Your task to perform on an android device: Clear all items from cart on target.com. Search for "logitech g pro" on target.com, select the first entry, and add it to the cart. Image 0: 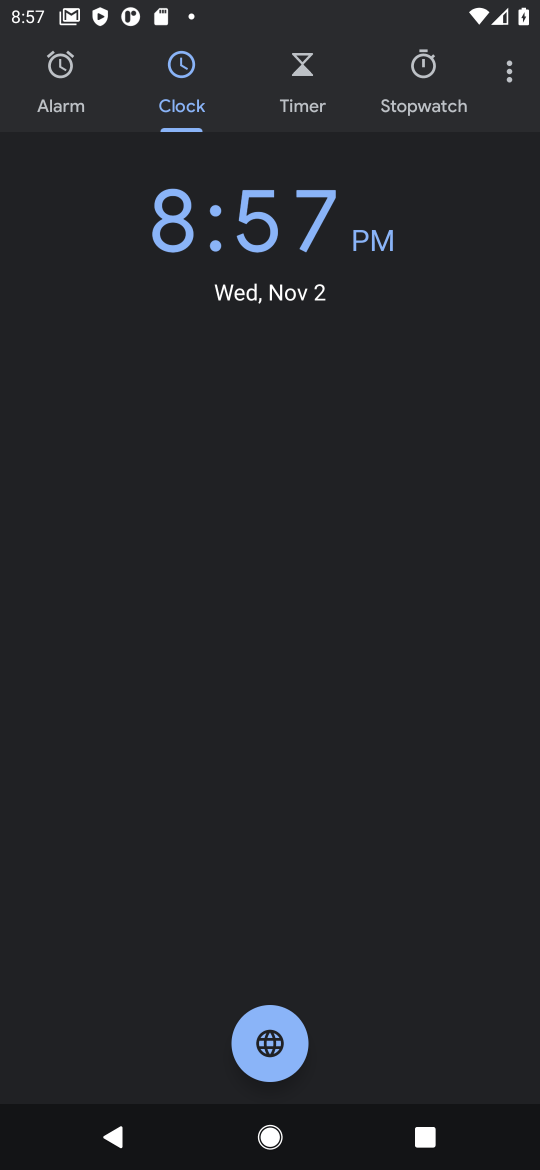
Step 0: press home button
Your task to perform on an android device: Clear all items from cart on target.com. Search for "logitech g pro" on target.com, select the first entry, and add it to the cart. Image 1: 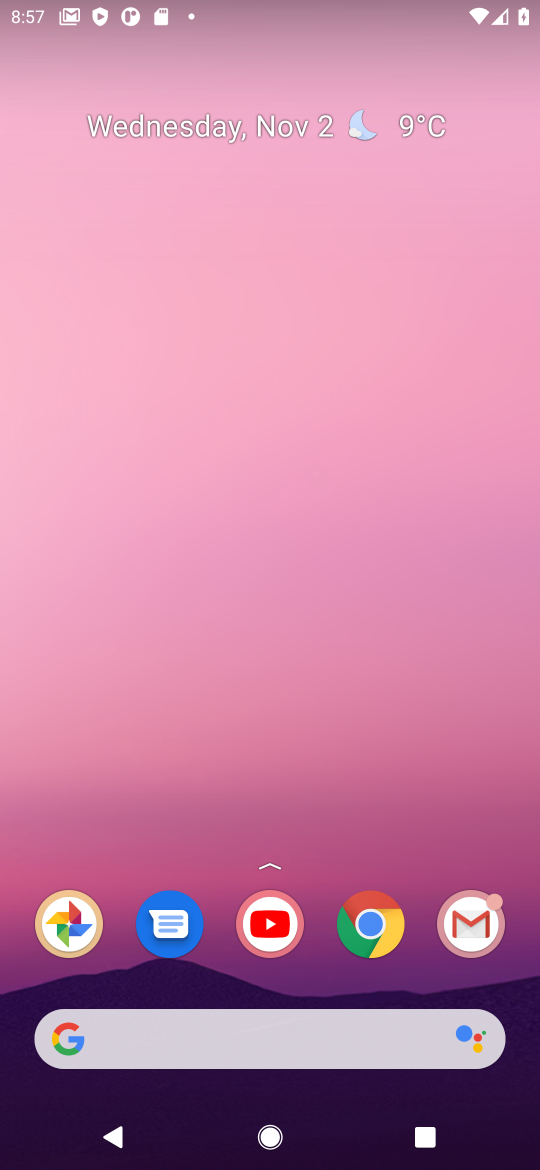
Step 1: click (374, 926)
Your task to perform on an android device: Clear all items from cart on target.com. Search for "logitech g pro" on target.com, select the first entry, and add it to the cart. Image 2: 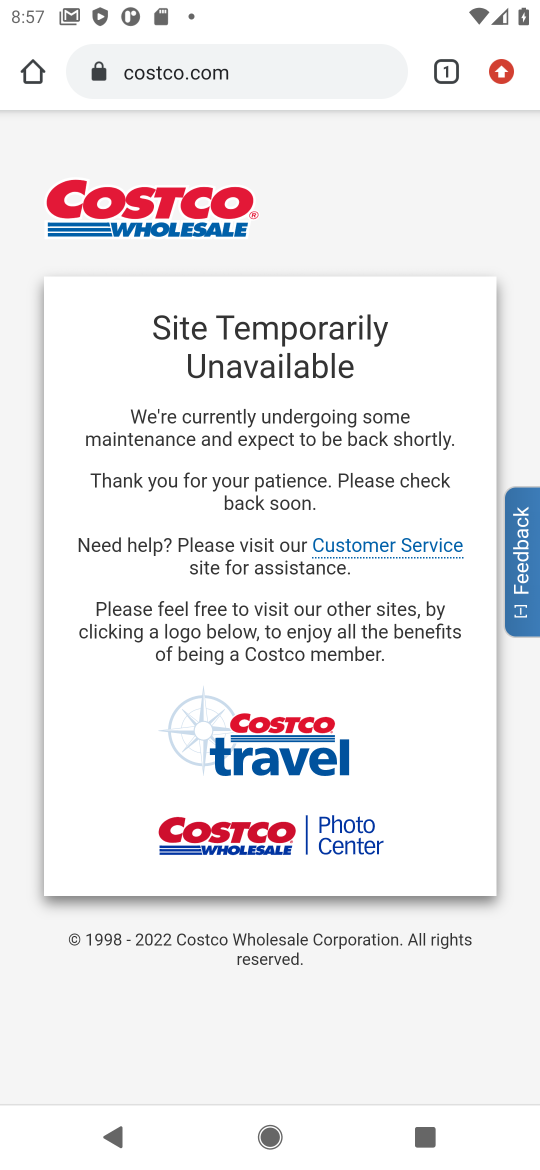
Step 2: click (169, 72)
Your task to perform on an android device: Clear all items from cart on target.com. Search for "logitech g pro" on target.com, select the first entry, and add it to the cart. Image 3: 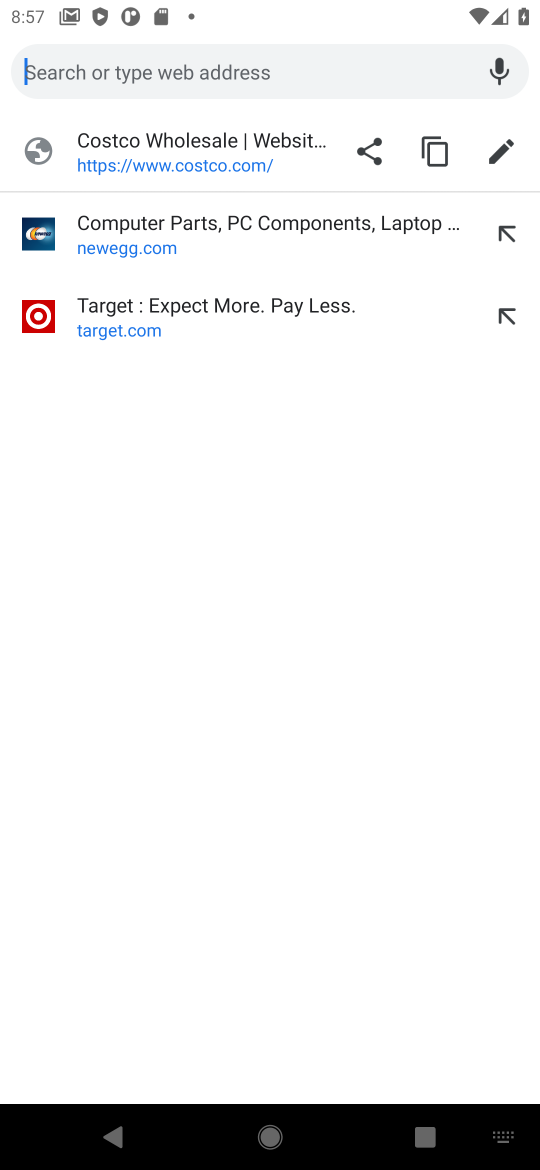
Step 3: type "target"
Your task to perform on an android device: Clear all items from cart on target.com. Search for "logitech g pro" on target.com, select the first entry, and add it to the cart. Image 4: 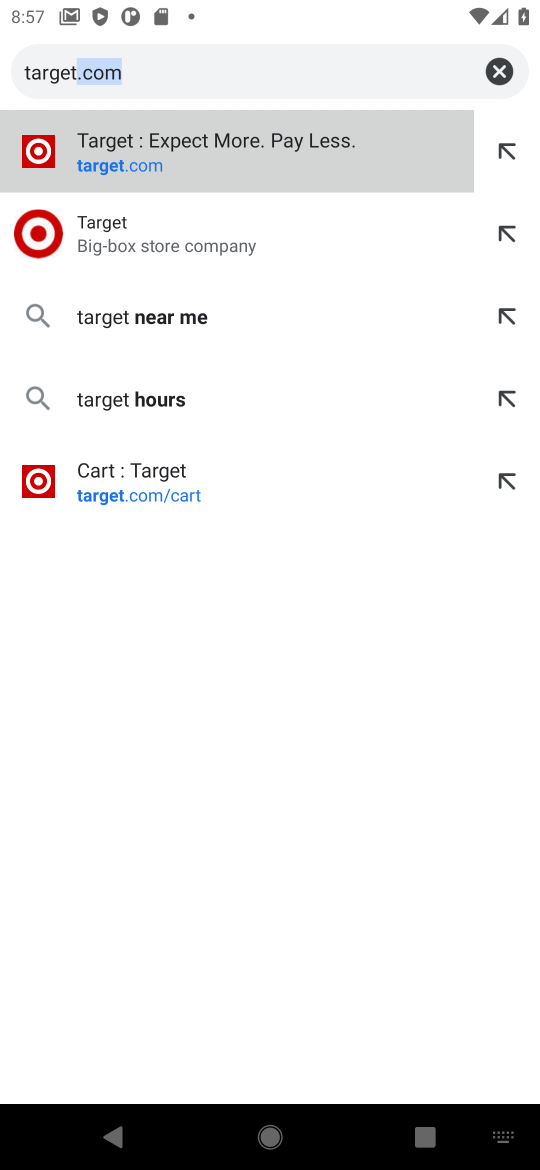
Step 4: click (134, 189)
Your task to perform on an android device: Clear all items from cart on target.com. Search for "logitech g pro" on target.com, select the first entry, and add it to the cart. Image 5: 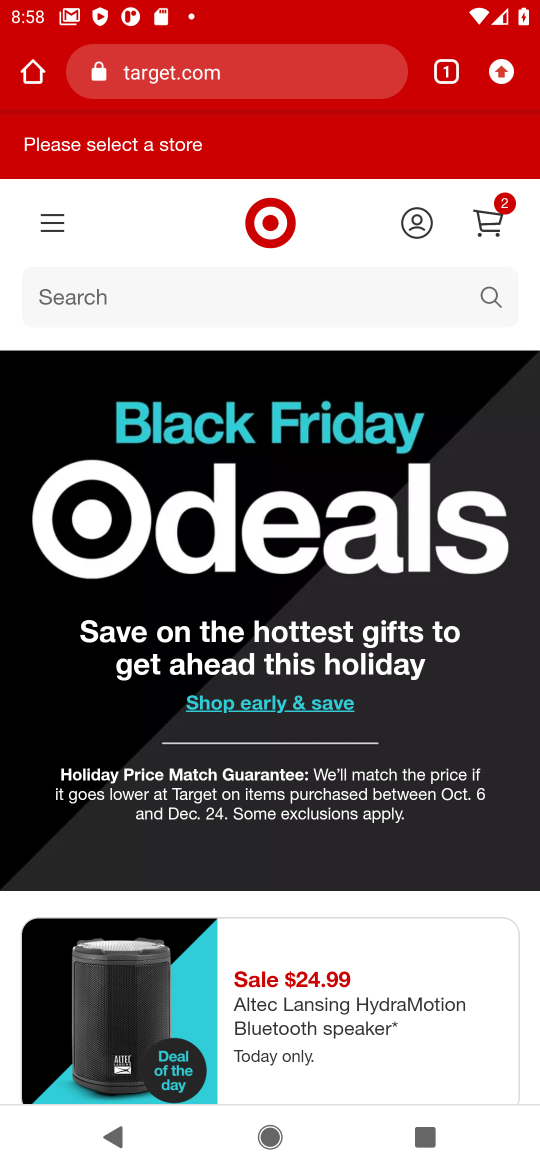
Step 5: click (480, 293)
Your task to perform on an android device: Clear all items from cart on target.com. Search for "logitech g pro" on target.com, select the first entry, and add it to the cart. Image 6: 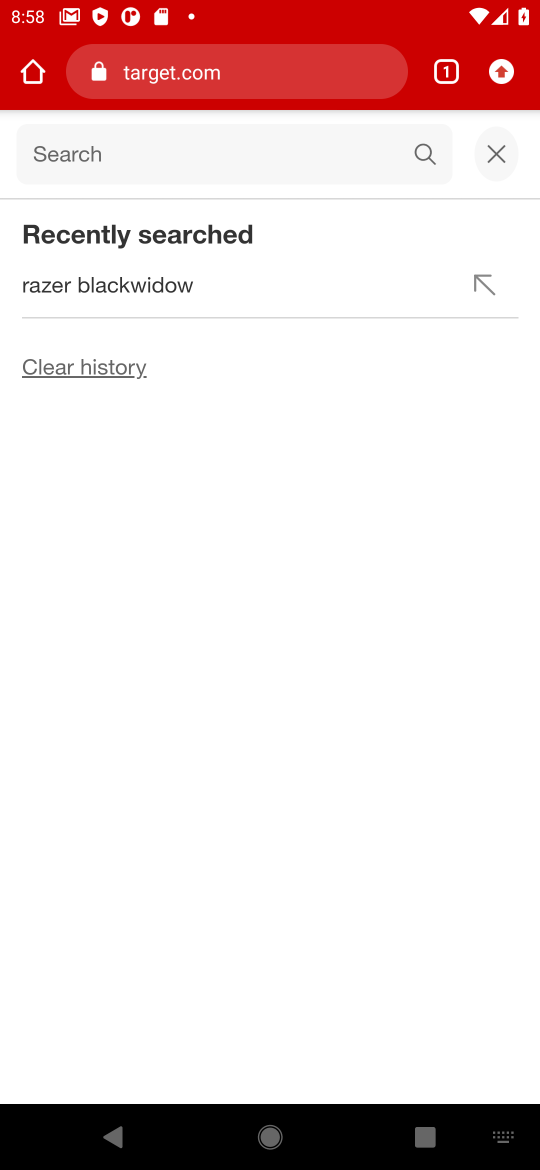
Step 6: type "logitech g pro"
Your task to perform on an android device: Clear all items from cart on target.com. Search for "logitech g pro" on target.com, select the first entry, and add it to the cart. Image 7: 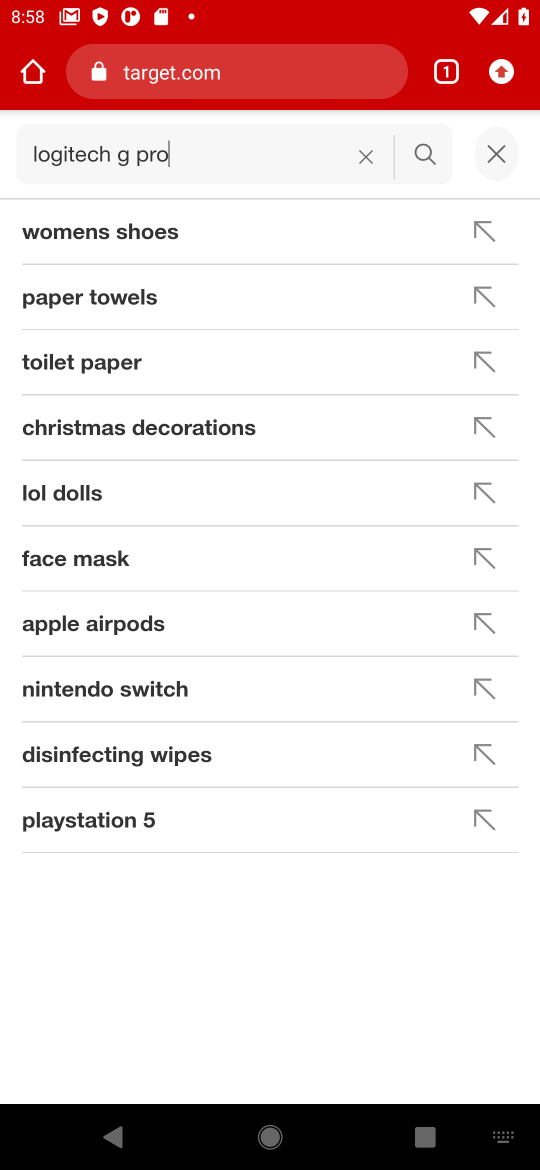
Step 7: type ""
Your task to perform on an android device: Clear all items from cart on target.com. Search for "logitech g pro" on target.com, select the first entry, and add it to the cart. Image 8: 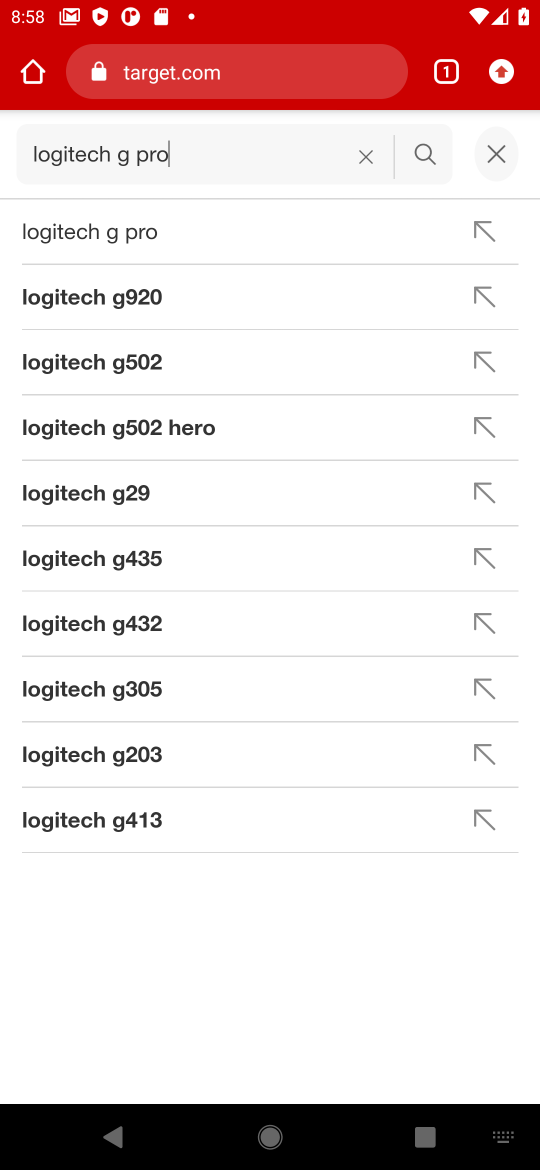
Step 8: click (126, 238)
Your task to perform on an android device: Clear all items from cart on target.com. Search for "logitech g pro" on target.com, select the first entry, and add it to the cart. Image 9: 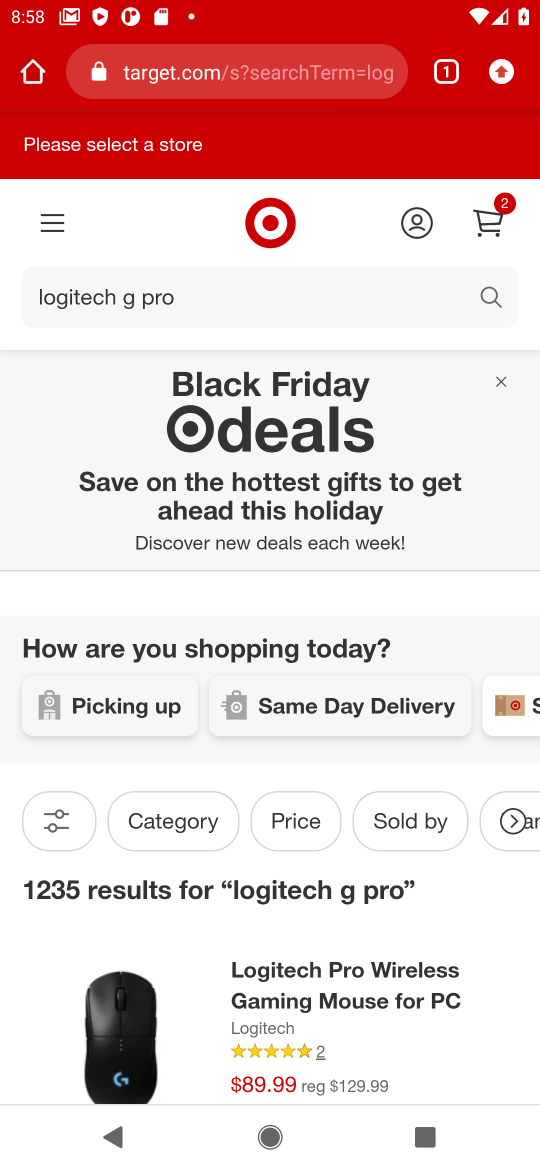
Step 9: click (282, 1009)
Your task to perform on an android device: Clear all items from cart on target.com. Search for "logitech g pro" on target.com, select the first entry, and add it to the cart. Image 10: 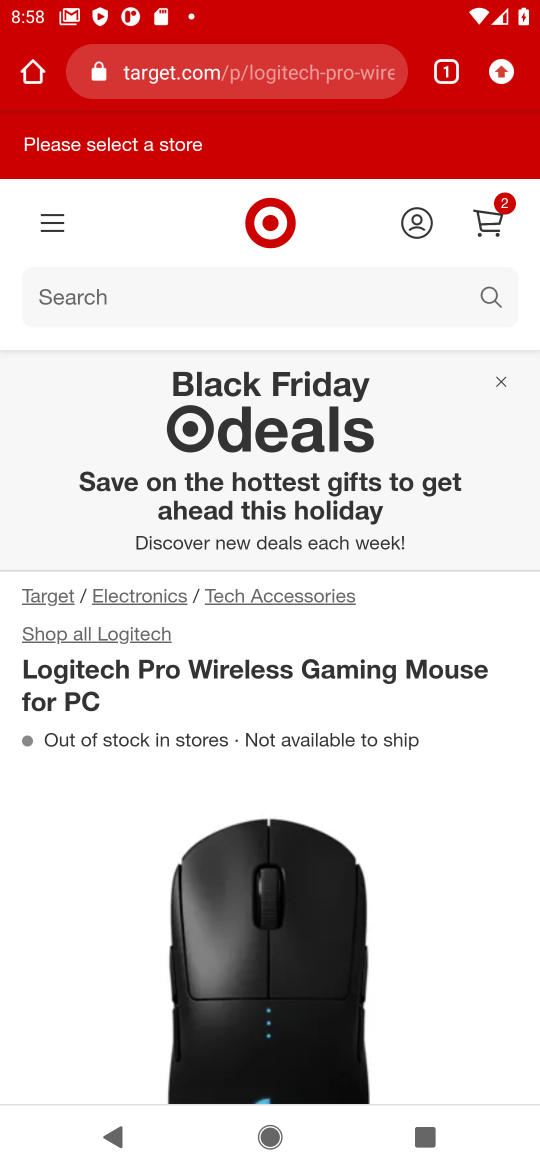
Step 10: drag from (410, 928) to (431, 442)
Your task to perform on an android device: Clear all items from cart on target.com. Search for "logitech g pro" on target.com, select the first entry, and add it to the cart. Image 11: 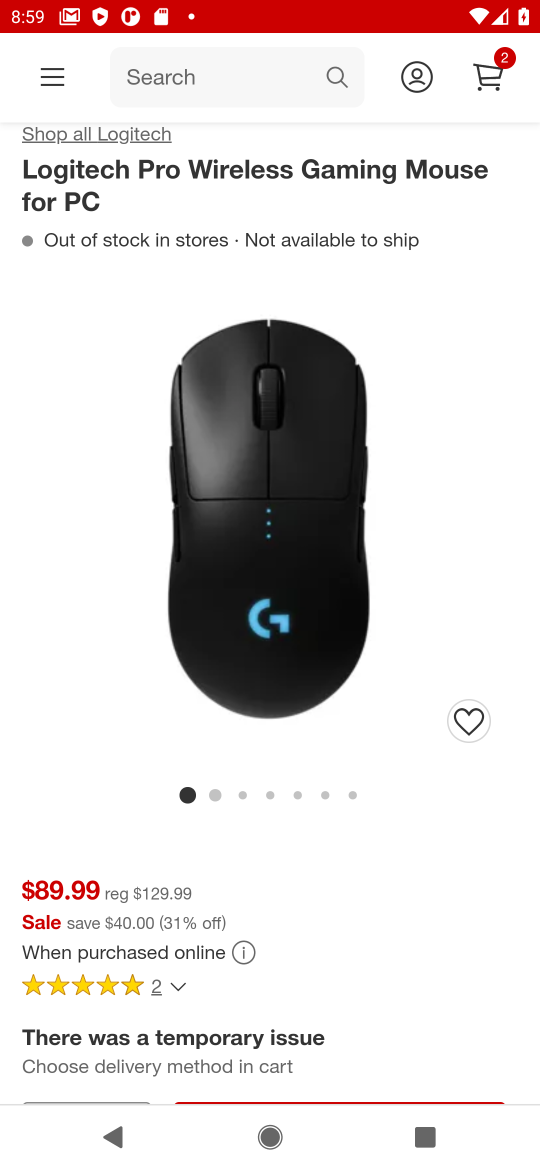
Step 11: drag from (381, 896) to (412, 721)
Your task to perform on an android device: Clear all items from cart on target.com. Search for "logitech g pro" on target.com, select the first entry, and add it to the cart. Image 12: 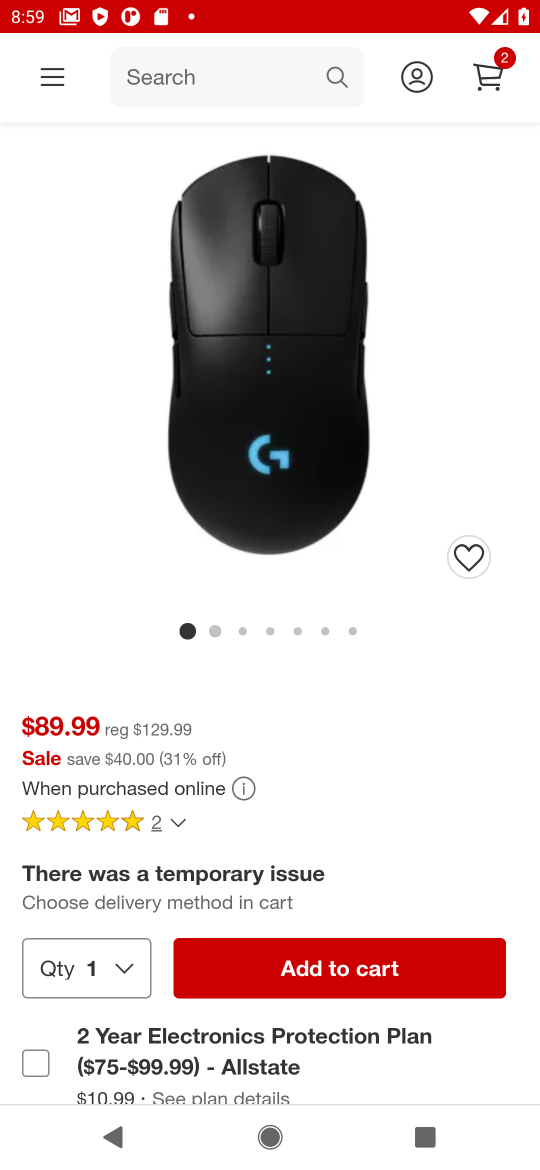
Step 12: click (409, 962)
Your task to perform on an android device: Clear all items from cart on target.com. Search for "logitech g pro" on target.com, select the first entry, and add it to the cart. Image 13: 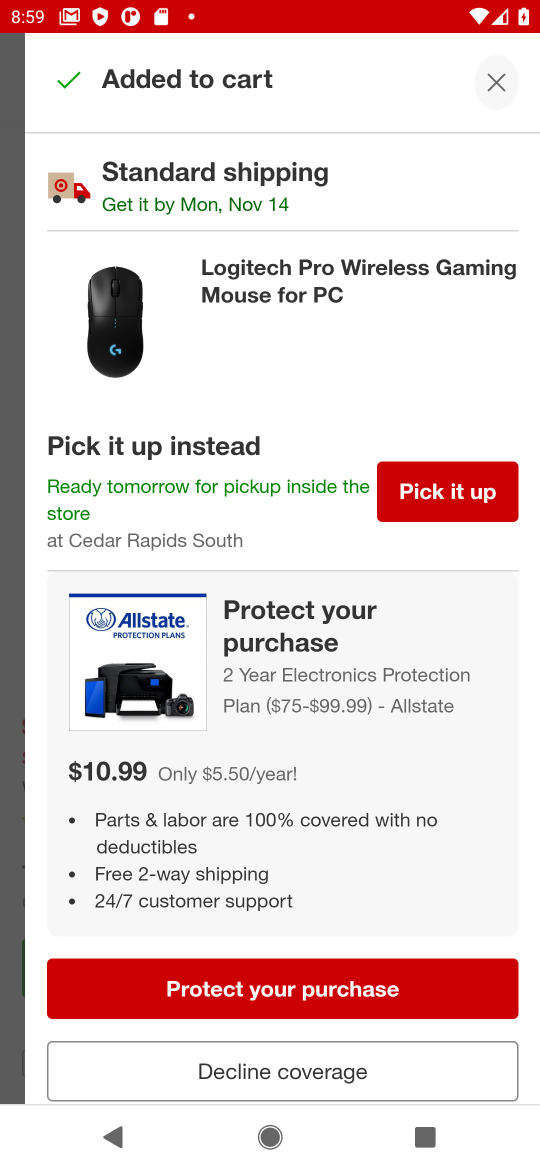
Step 13: drag from (394, 903) to (393, 673)
Your task to perform on an android device: Clear all items from cart on target.com. Search for "logitech g pro" on target.com, select the first entry, and add it to the cart. Image 14: 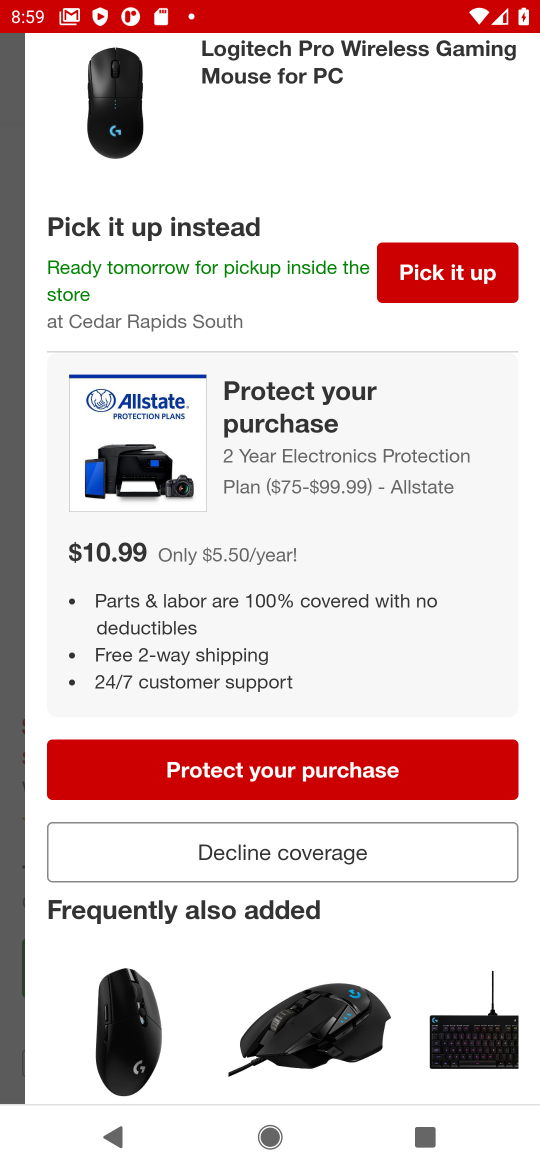
Step 14: click (252, 771)
Your task to perform on an android device: Clear all items from cart on target.com. Search for "logitech g pro" on target.com, select the first entry, and add it to the cart. Image 15: 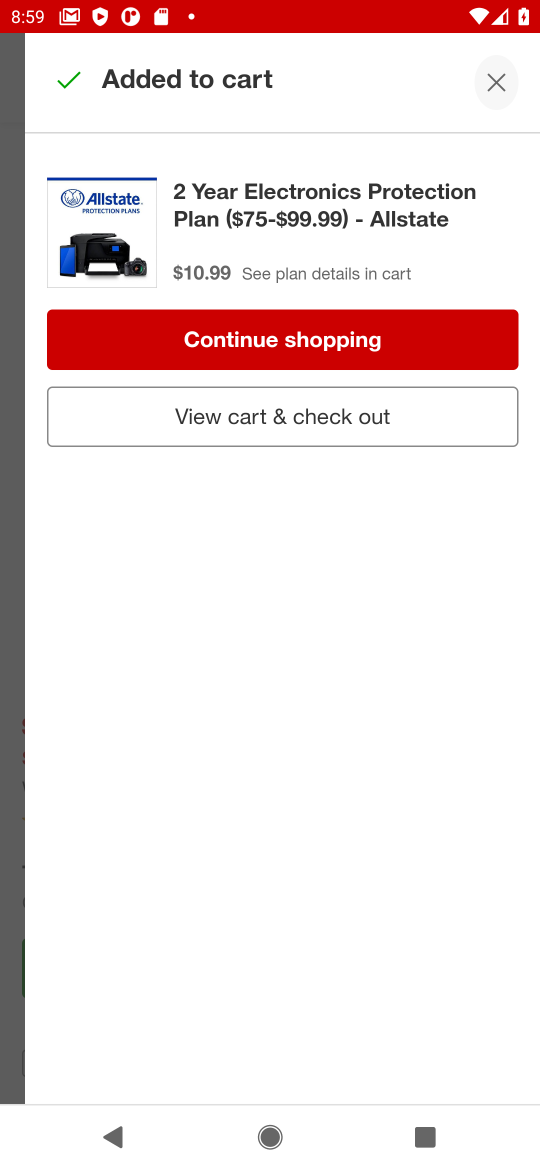
Step 15: click (314, 414)
Your task to perform on an android device: Clear all items from cart on target.com. Search for "logitech g pro" on target.com, select the first entry, and add it to the cart. Image 16: 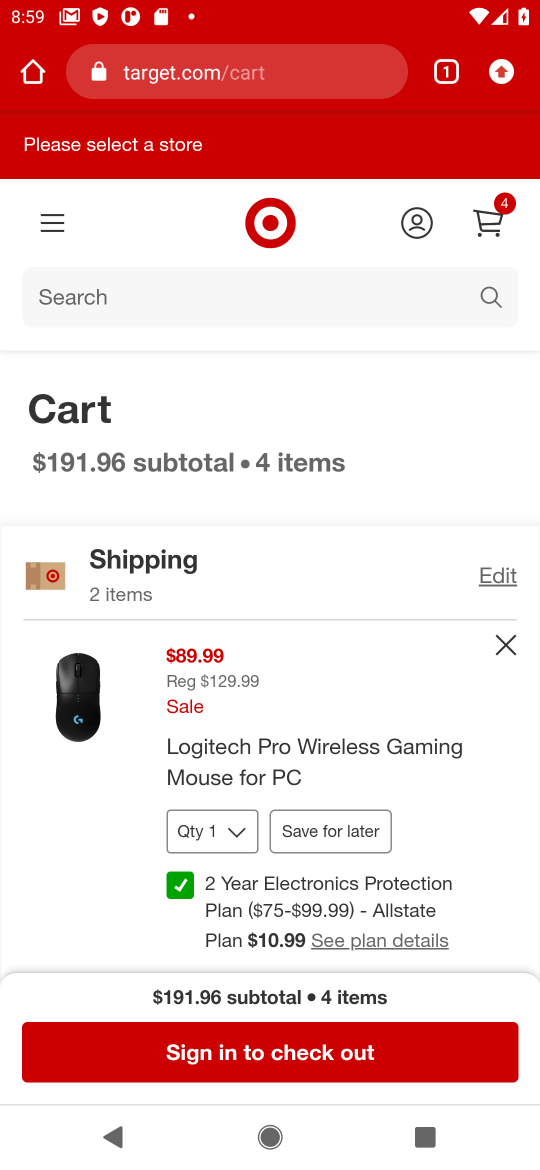
Step 16: click (333, 1072)
Your task to perform on an android device: Clear all items from cart on target.com. Search for "logitech g pro" on target.com, select the first entry, and add it to the cart. Image 17: 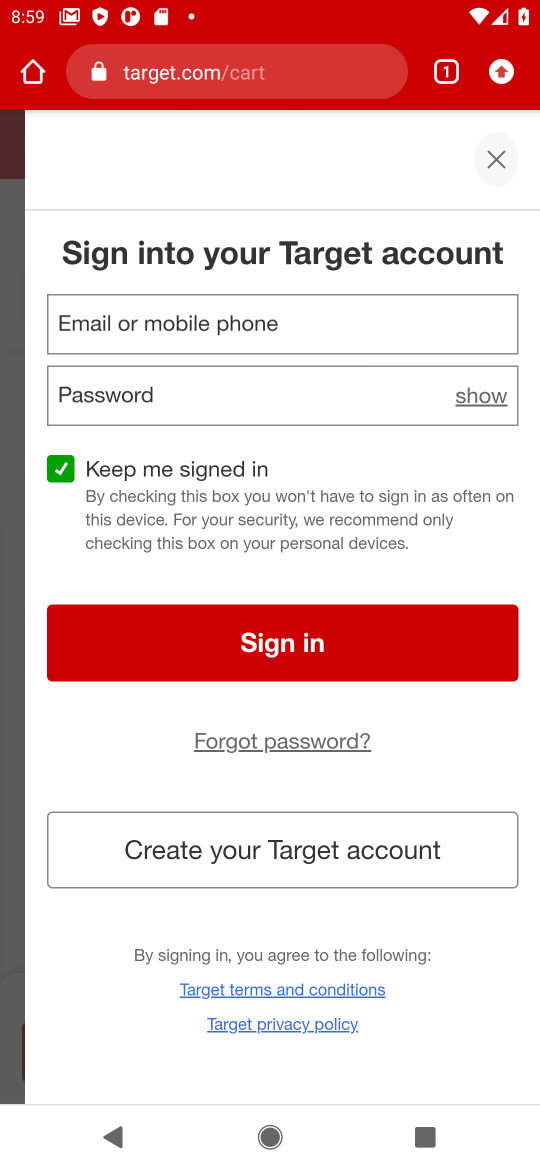
Step 17: click (496, 151)
Your task to perform on an android device: Clear all items from cart on target.com. Search for "logitech g pro" on target.com, select the first entry, and add it to the cart. Image 18: 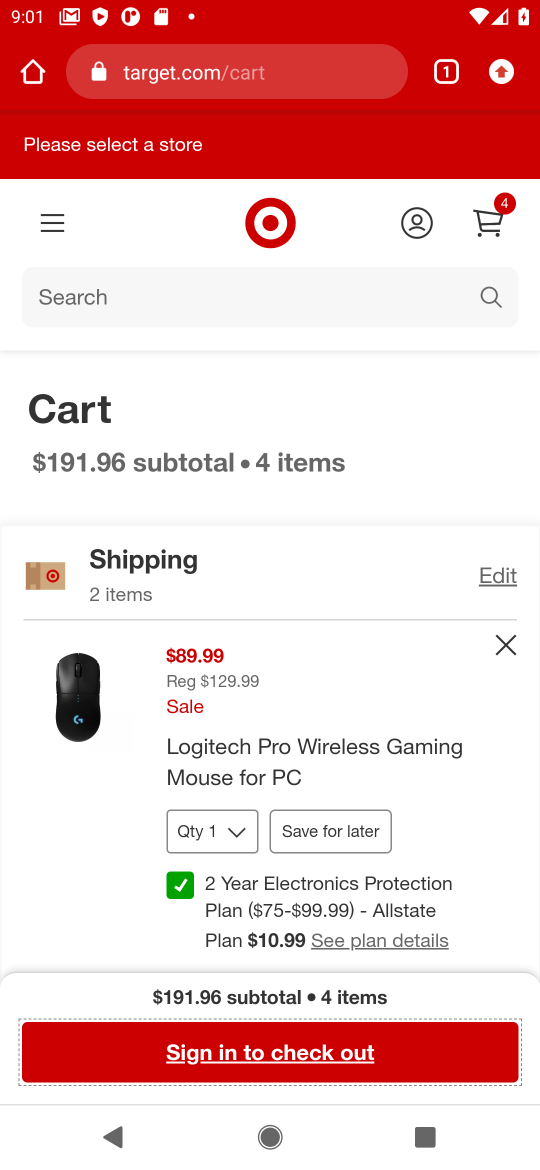
Step 18: task complete